Your task to perform on an android device: open the mobile data screen to see how much data has been used Image 0: 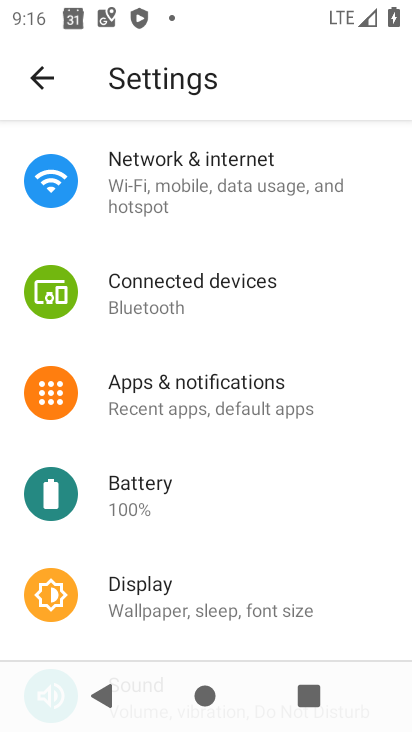
Step 0: click (206, 176)
Your task to perform on an android device: open the mobile data screen to see how much data has been used Image 1: 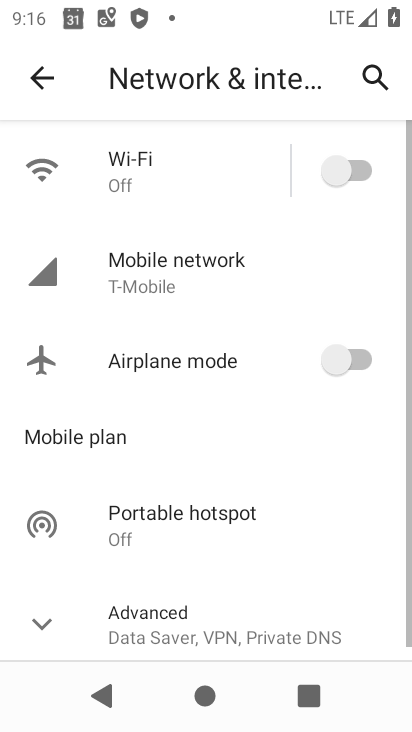
Step 1: click (203, 251)
Your task to perform on an android device: open the mobile data screen to see how much data has been used Image 2: 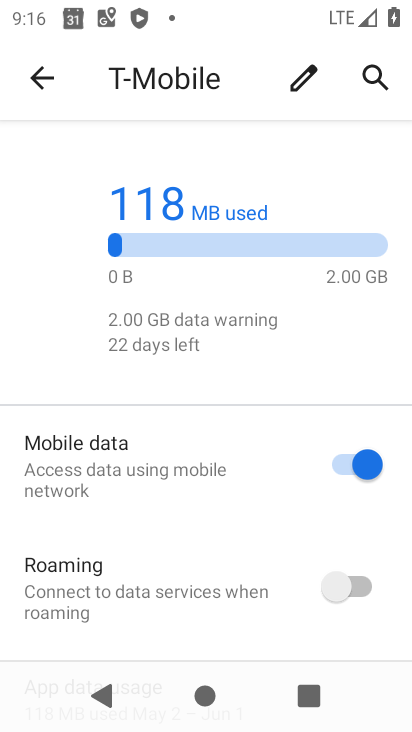
Step 2: task complete